Your task to perform on an android device: Do I have any events today? Image 0: 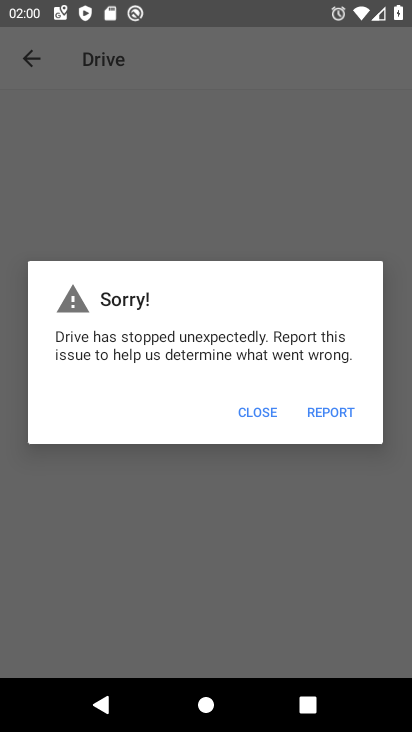
Step 0: press home button
Your task to perform on an android device: Do I have any events today? Image 1: 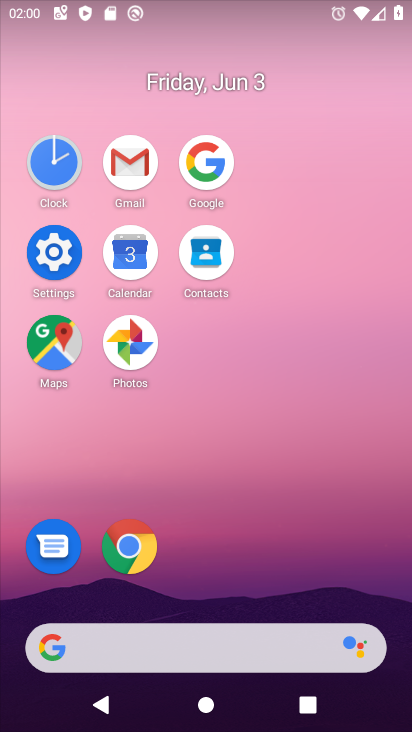
Step 1: click (148, 264)
Your task to perform on an android device: Do I have any events today? Image 2: 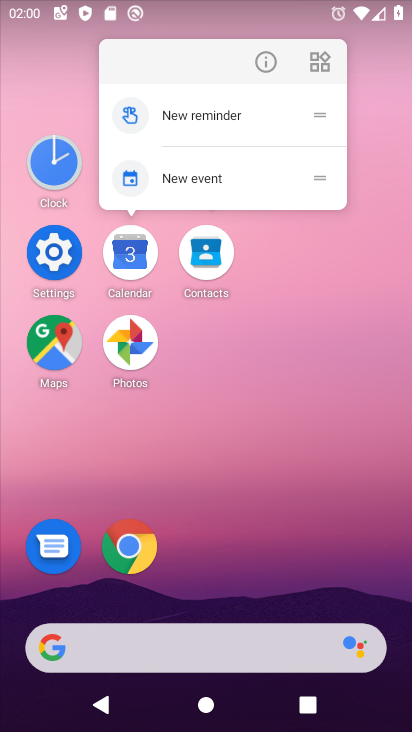
Step 2: click (148, 264)
Your task to perform on an android device: Do I have any events today? Image 3: 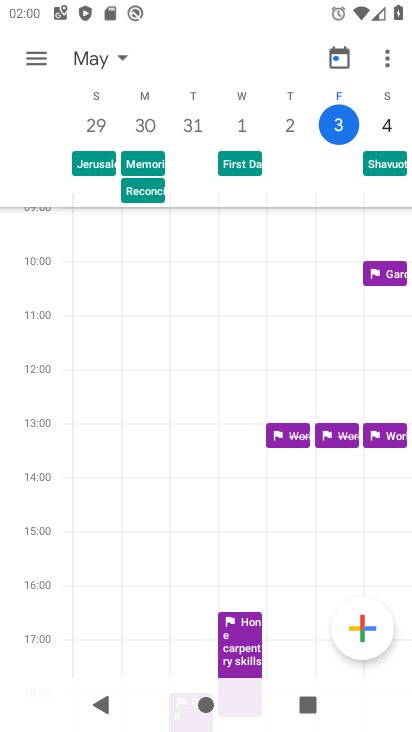
Step 3: click (343, 137)
Your task to perform on an android device: Do I have any events today? Image 4: 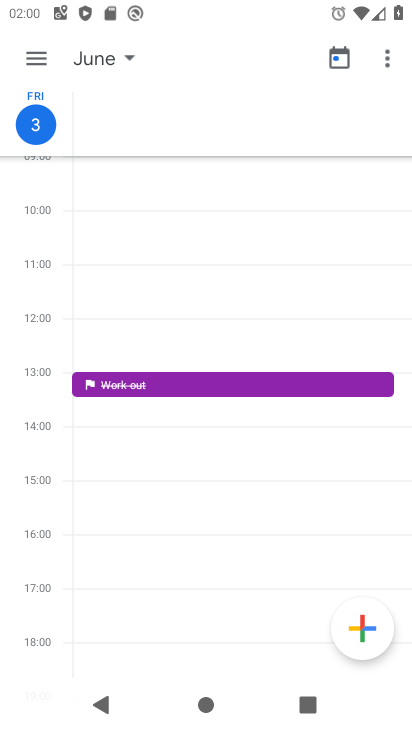
Step 4: task complete